Your task to perform on an android device: Open location settings Image 0: 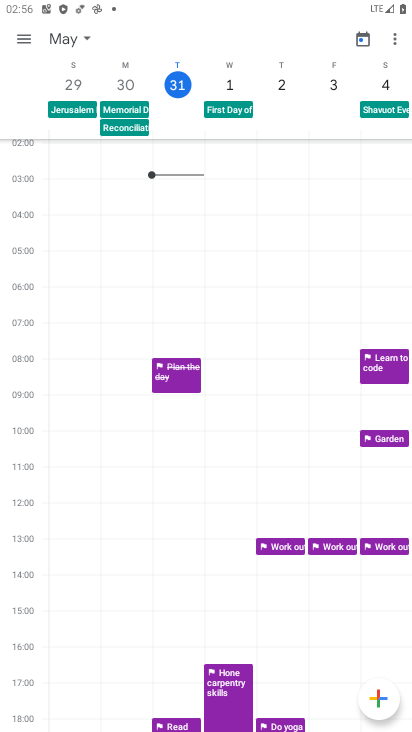
Step 0: press home button
Your task to perform on an android device: Open location settings Image 1: 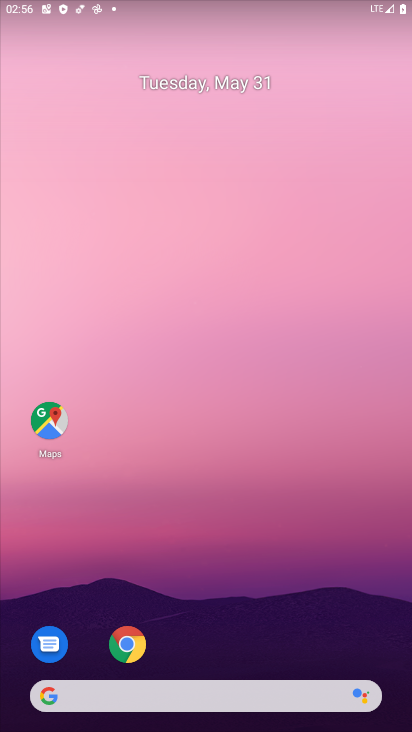
Step 1: drag from (255, 603) to (211, 165)
Your task to perform on an android device: Open location settings Image 2: 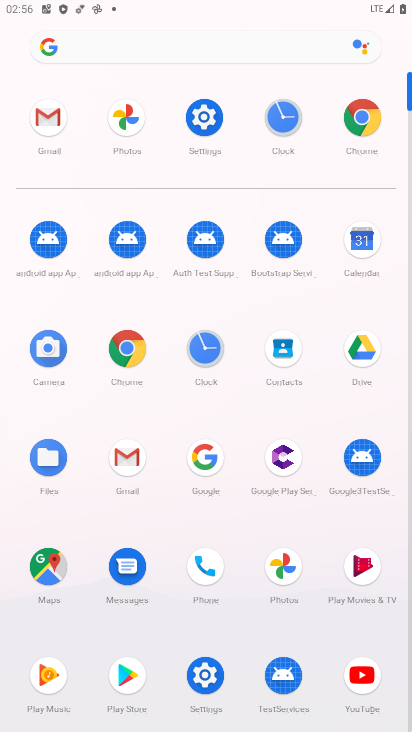
Step 2: click (206, 120)
Your task to perform on an android device: Open location settings Image 3: 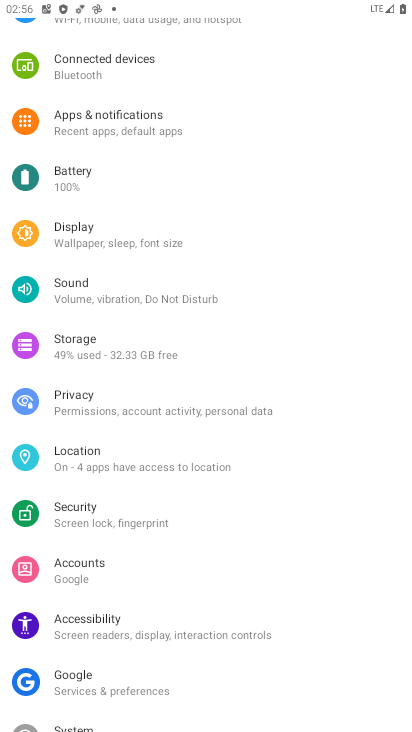
Step 3: click (93, 458)
Your task to perform on an android device: Open location settings Image 4: 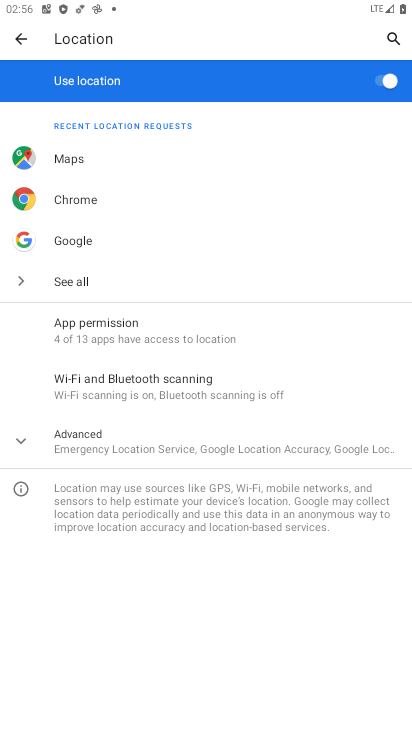
Step 4: task complete